Your task to perform on an android device: uninstall "Walmart Shopping & Grocery" Image 0: 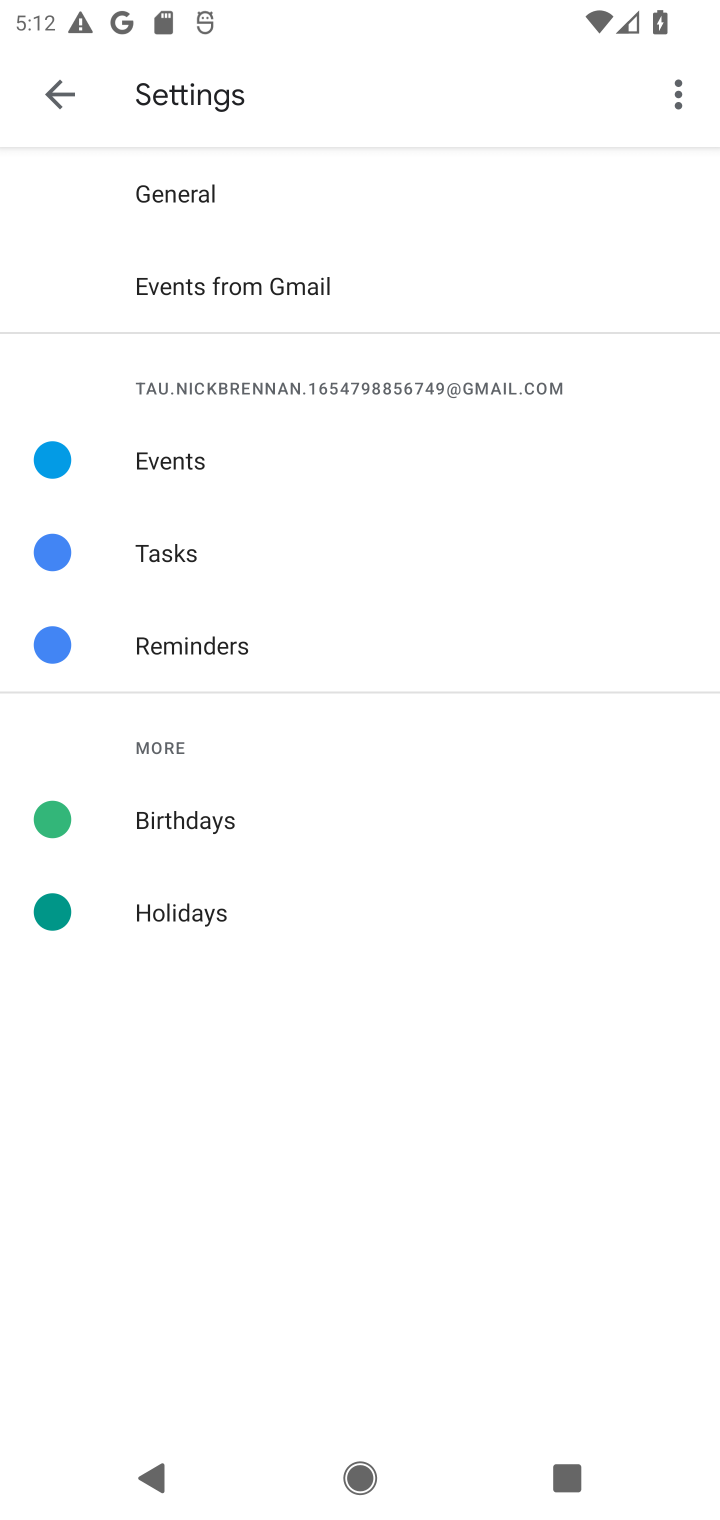
Step 0: press home button
Your task to perform on an android device: uninstall "Walmart Shopping & Grocery" Image 1: 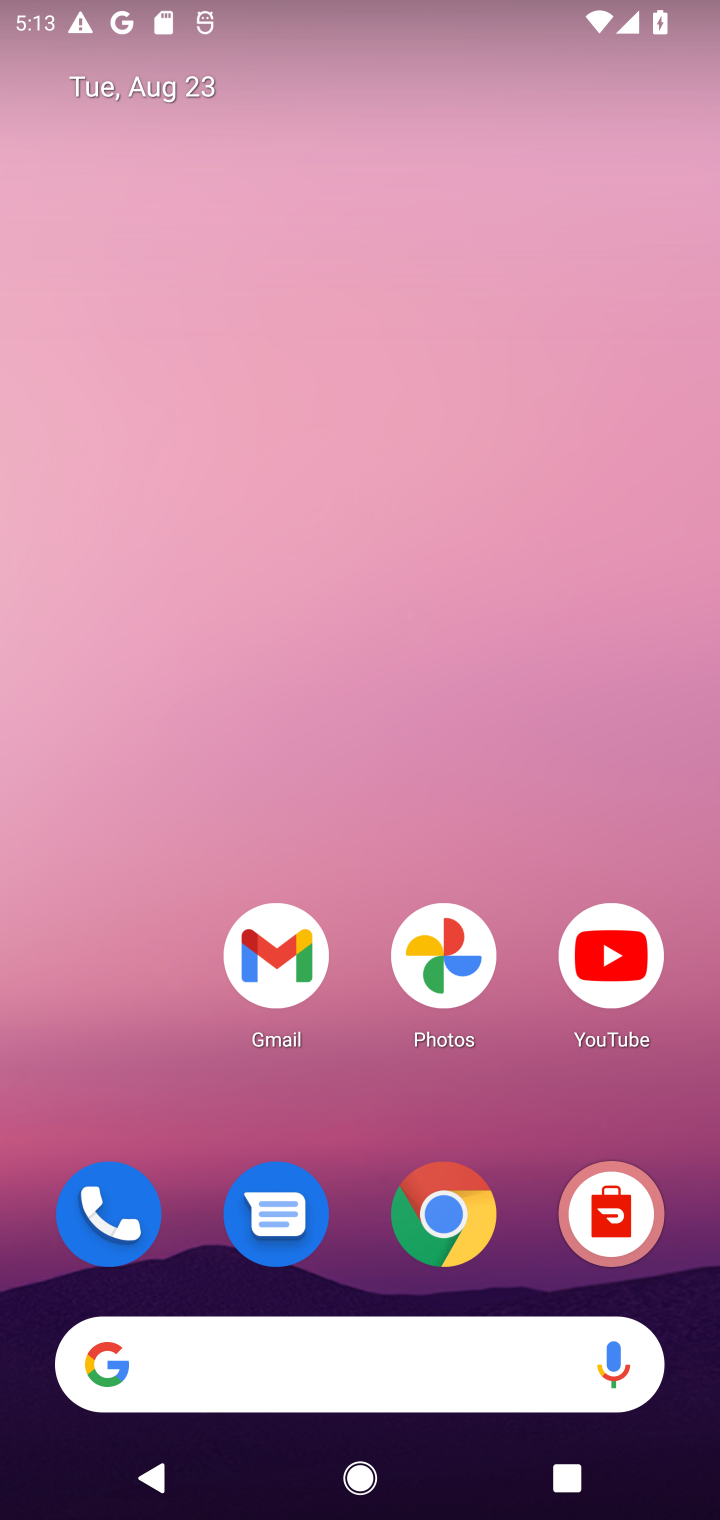
Step 1: drag from (322, 986) to (320, 248)
Your task to perform on an android device: uninstall "Walmart Shopping & Grocery" Image 2: 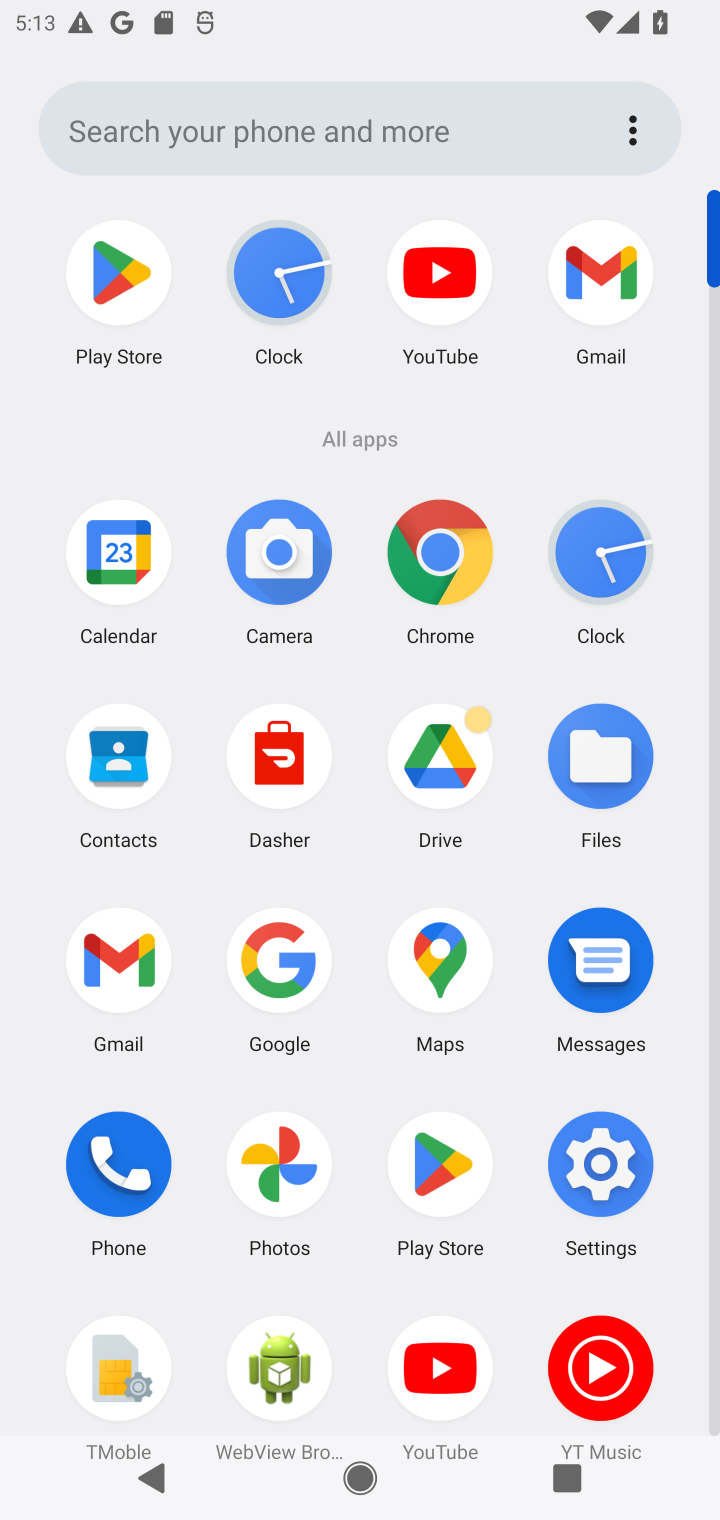
Step 2: click (430, 1176)
Your task to perform on an android device: uninstall "Walmart Shopping & Grocery" Image 3: 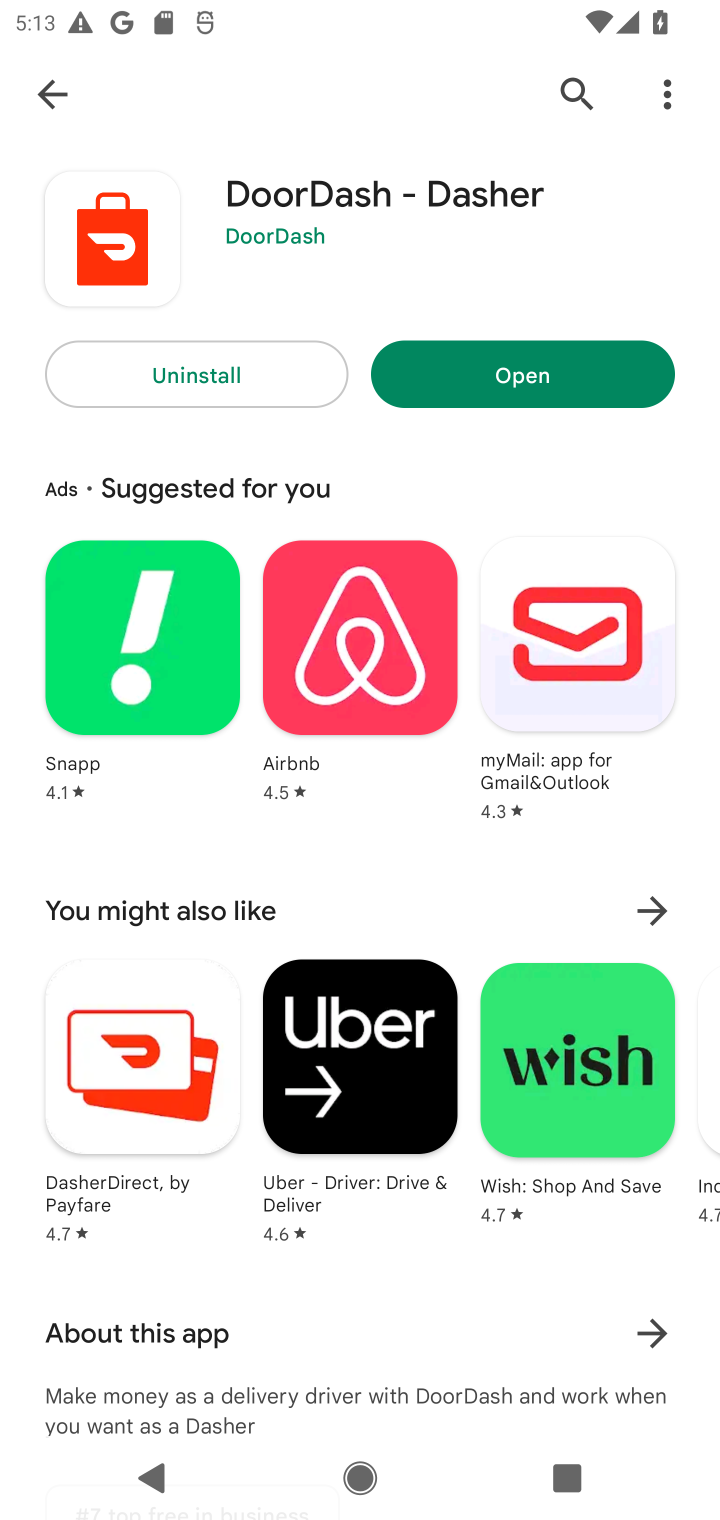
Step 3: click (577, 94)
Your task to perform on an android device: uninstall "Walmart Shopping & Grocery" Image 4: 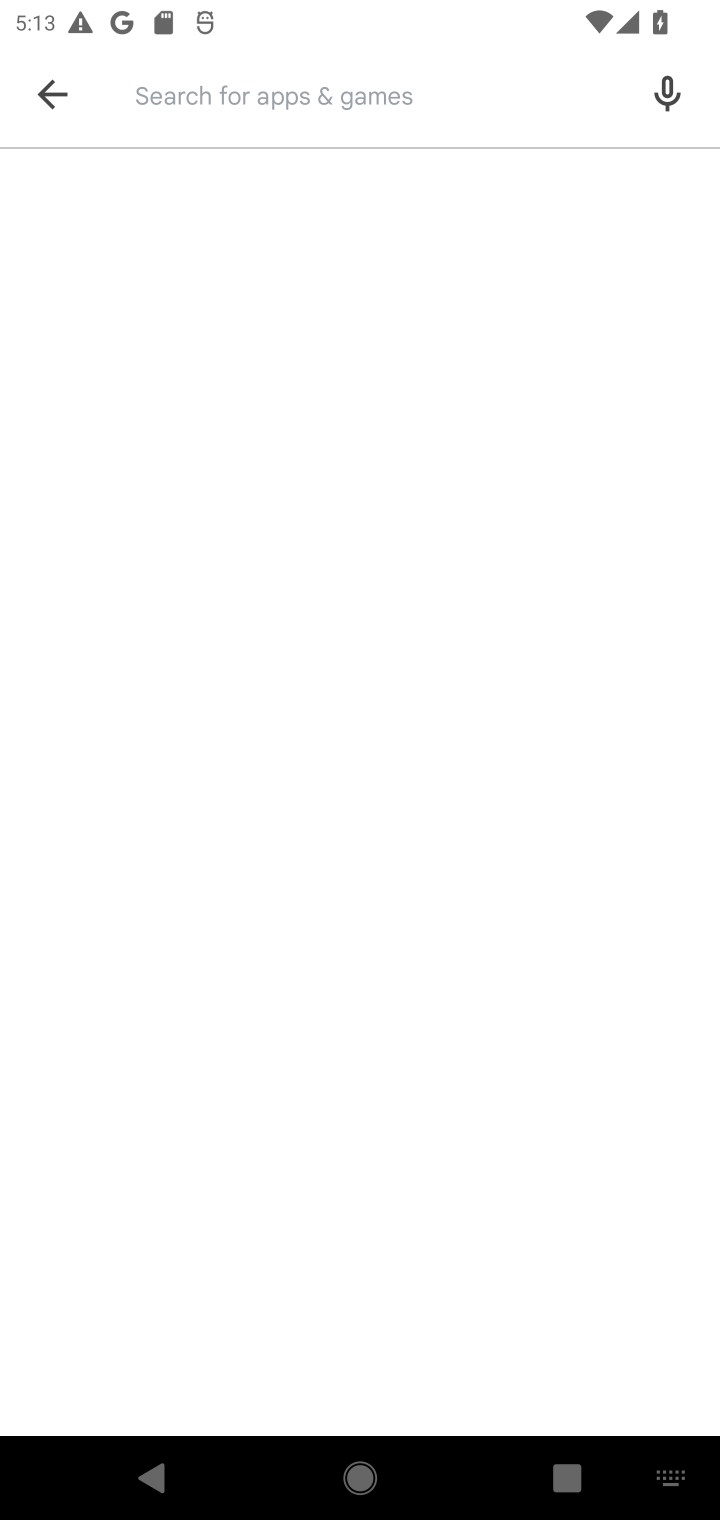
Step 4: type "Walmart Shopping & Grocery"
Your task to perform on an android device: uninstall "Walmart Shopping & Grocery" Image 5: 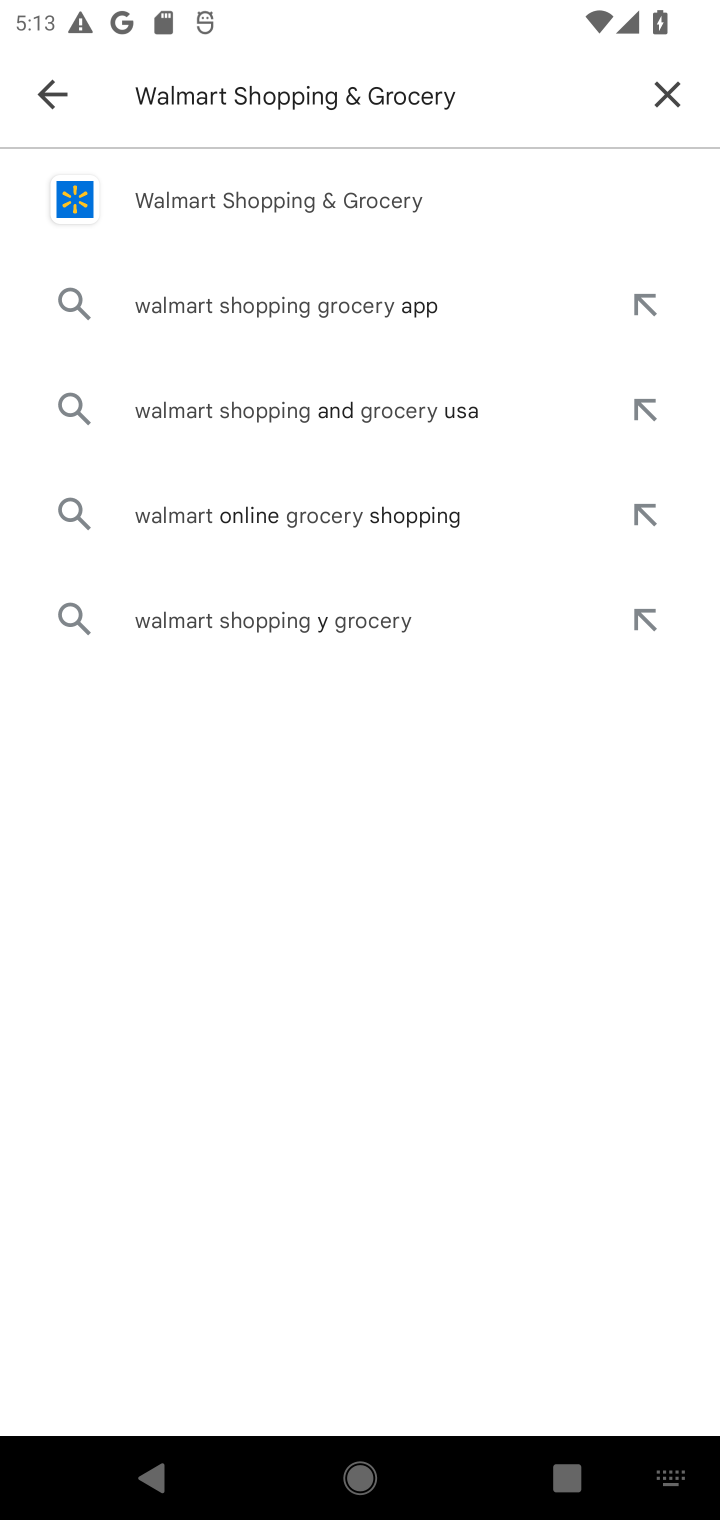
Step 5: click (277, 205)
Your task to perform on an android device: uninstall "Walmart Shopping & Grocery" Image 6: 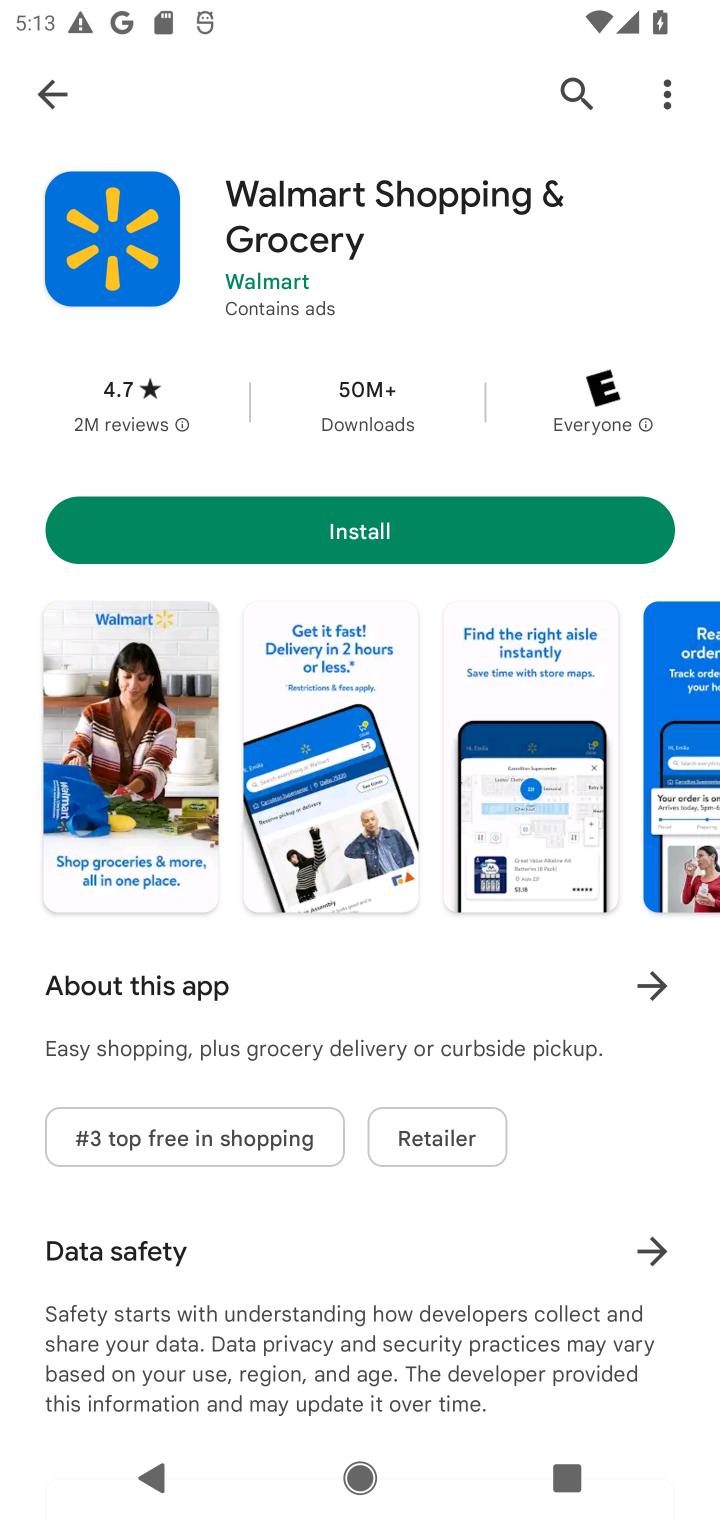
Step 6: task complete